Your task to perform on an android device: Open Google Image 0: 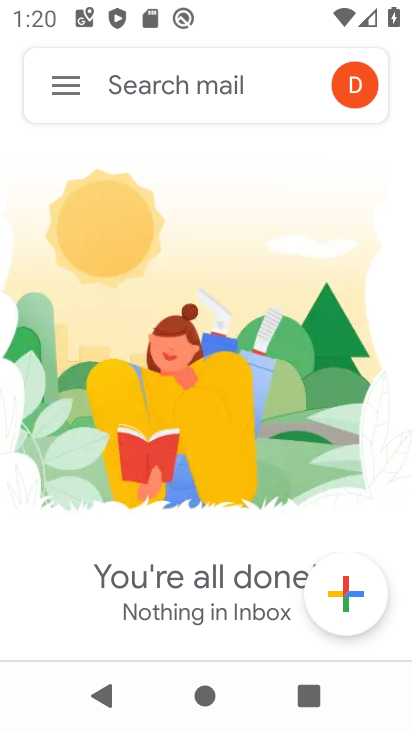
Step 0: press home button
Your task to perform on an android device: Open Google Image 1: 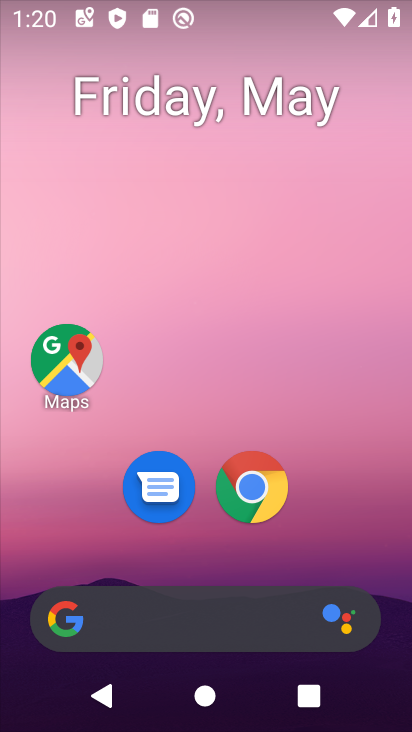
Step 1: click (258, 597)
Your task to perform on an android device: Open Google Image 2: 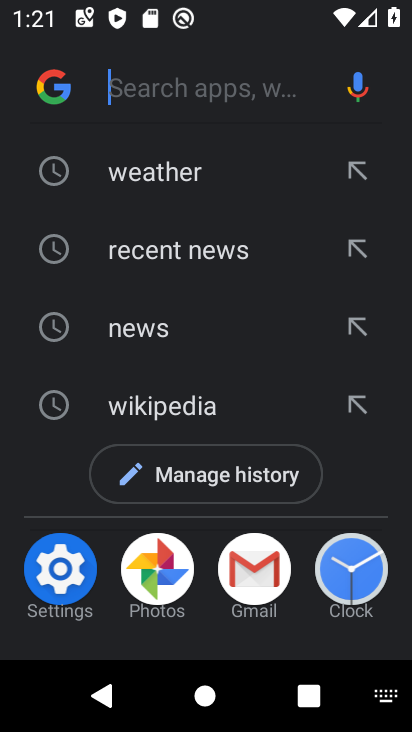
Step 2: task complete